Your task to perform on an android device: Go to wifi settings Image 0: 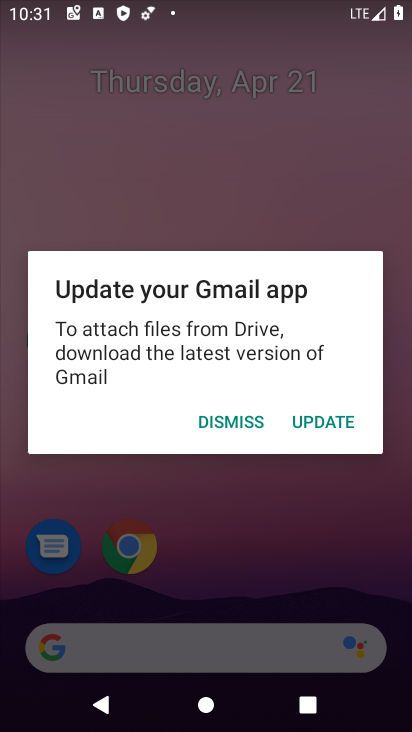
Step 0: press home button
Your task to perform on an android device: Go to wifi settings Image 1: 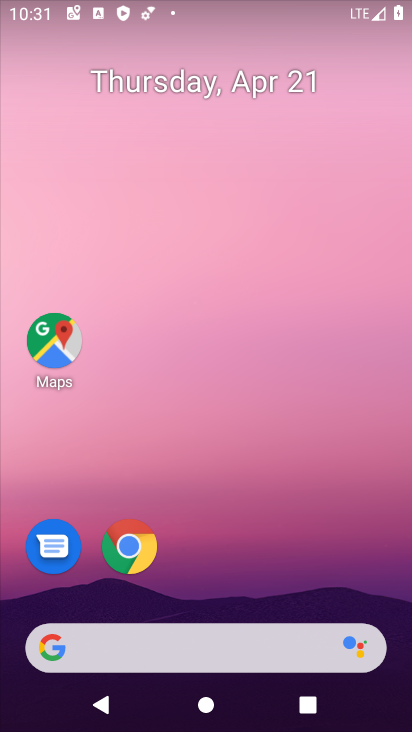
Step 1: drag from (335, 602) to (308, 206)
Your task to perform on an android device: Go to wifi settings Image 2: 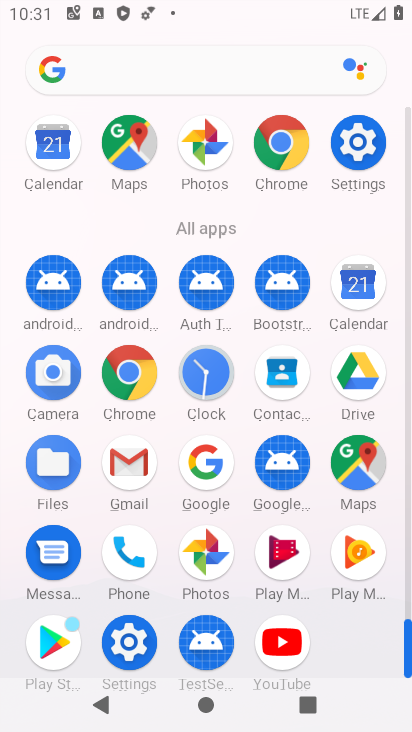
Step 2: click (130, 645)
Your task to perform on an android device: Go to wifi settings Image 3: 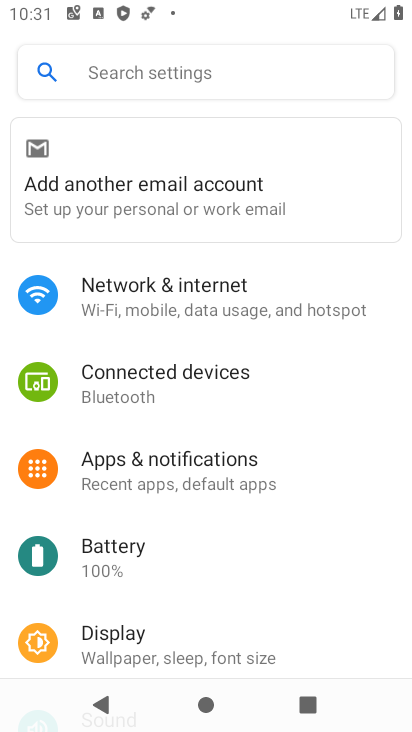
Step 3: click (134, 289)
Your task to perform on an android device: Go to wifi settings Image 4: 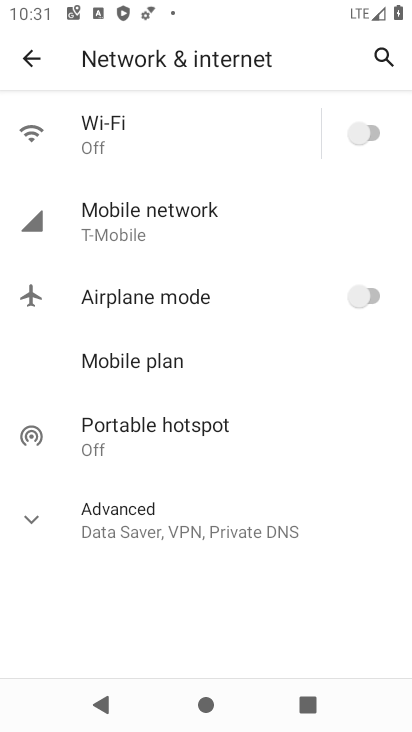
Step 4: click (85, 124)
Your task to perform on an android device: Go to wifi settings Image 5: 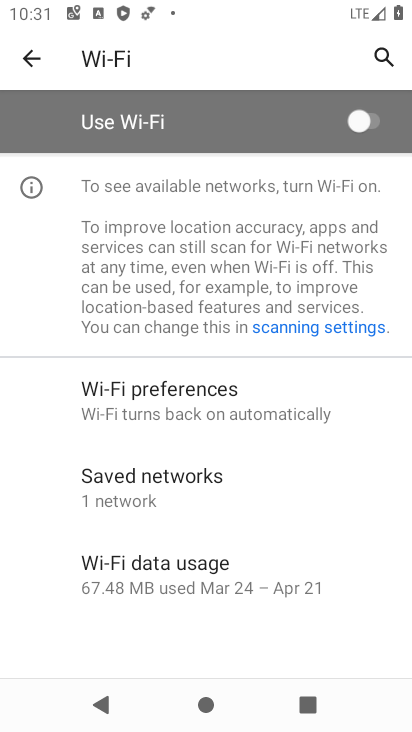
Step 5: task complete